Your task to perform on an android device: Go to calendar. Show me events next week Image 0: 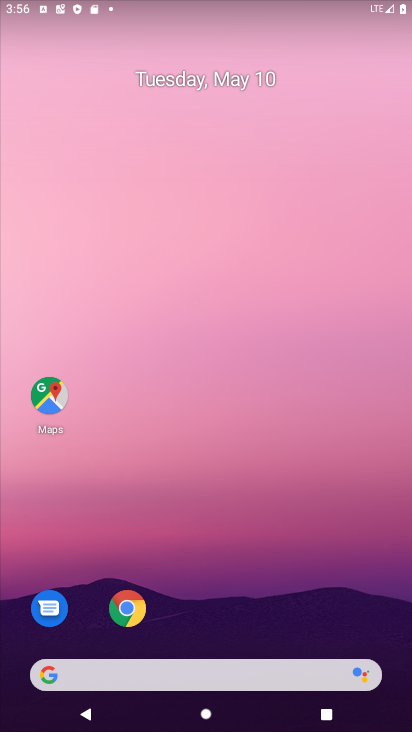
Step 0: drag from (373, 624) to (304, 65)
Your task to perform on an android device: Go to calendar. Show me events next week Image 1: 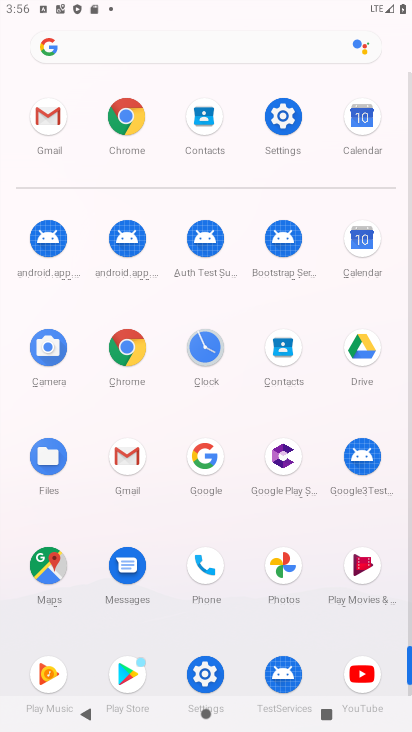
Step 1: click (360, 235)
Your task to perform on an android device: Go to calendar. Show me events next week Image 2: 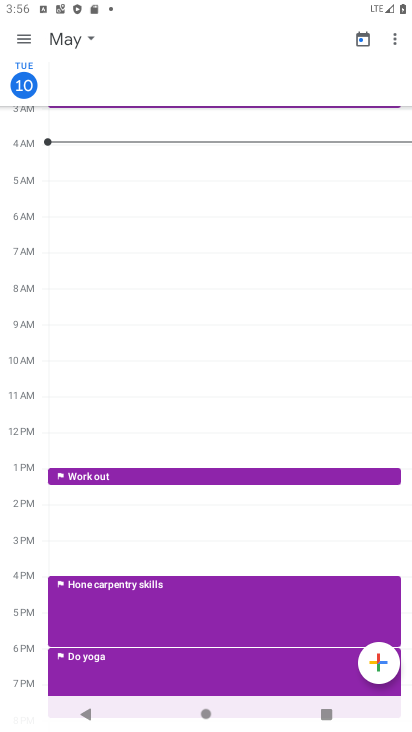
Step 2: click (25, 36)
Your task to perform on an android device: Go to calendar. Show me events next week Image 3: 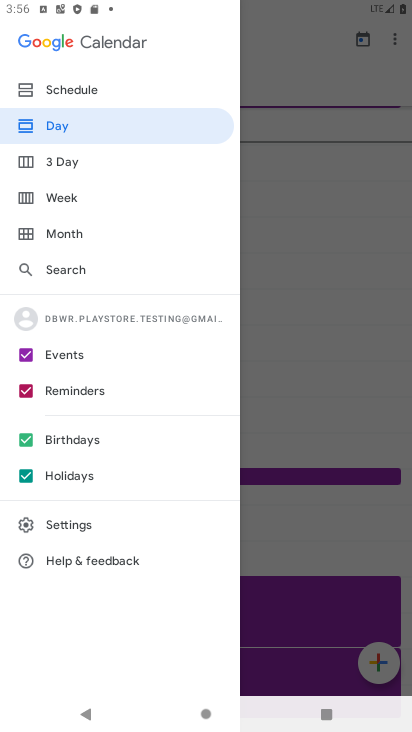
Step 3: click (58, 198)
Your task to perform on an android device: Go to calendar. Show me events next week Image 4: 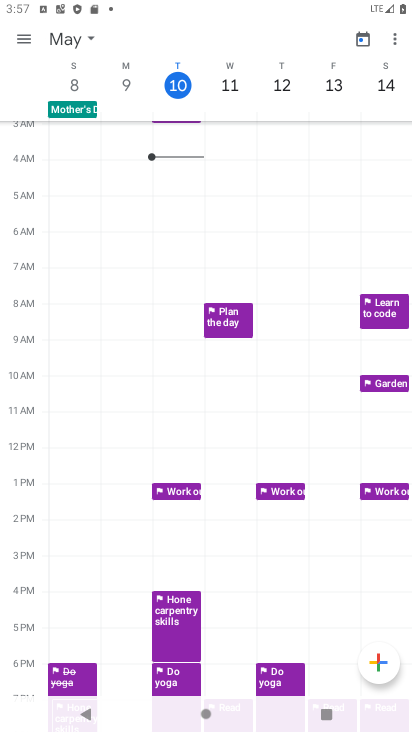
Step 4: click (90, 33)
Your task to perform on an android device: Go to calendar. Show me events next week Image 5: 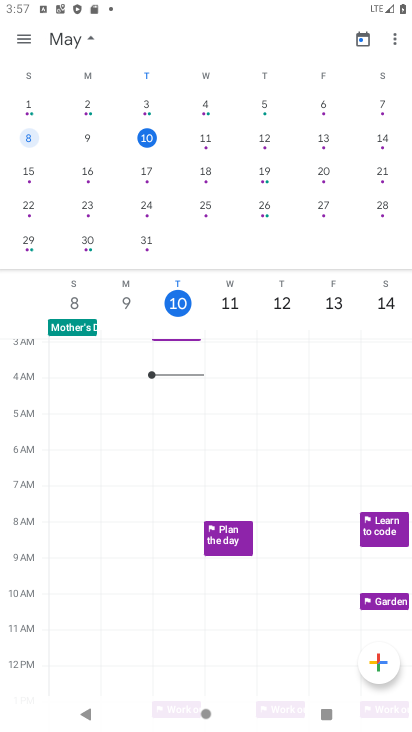
Step 5: click (26, 170)
Your task to perform on an android device: Go to calendar. Show me events next week Image 6: 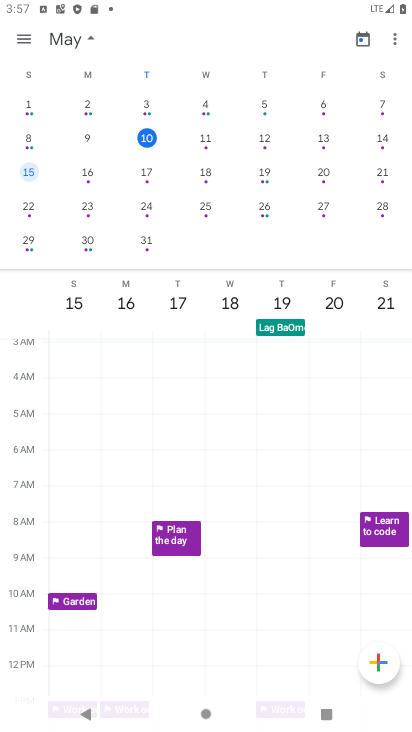
Step 6: task complete